Your task to perform on an android device: Open Chrome and go to settings Image 0: 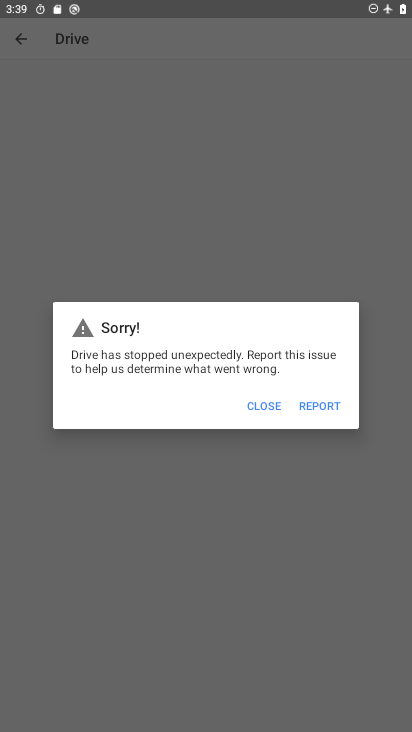
Step 0: press home button
Your task to perform on an android device: Open Chrome and go to settings Image 1: 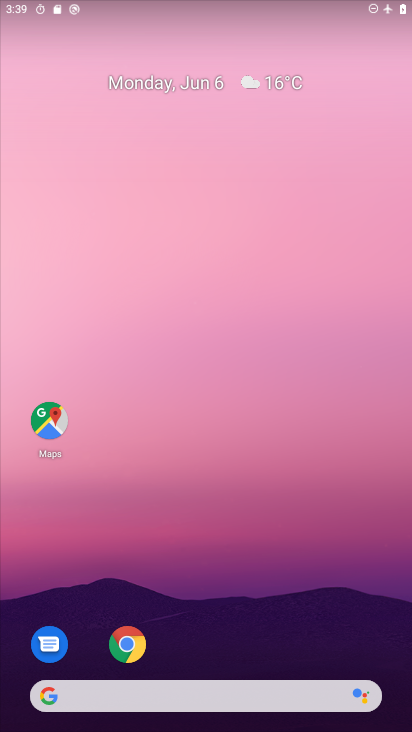
Step 1: click (126, 644)
Your task to perform on an android device: Open Chrome and go to settings Image 2: 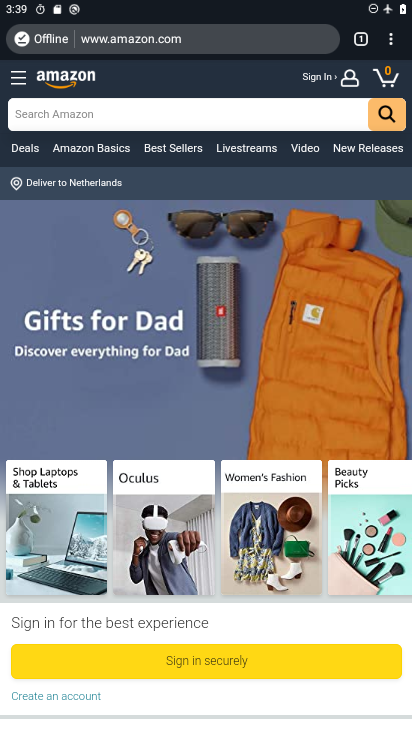
Step 2: click (392, 40)
Your task to perform on an android device: Open Chrome and go to settings Image 3: 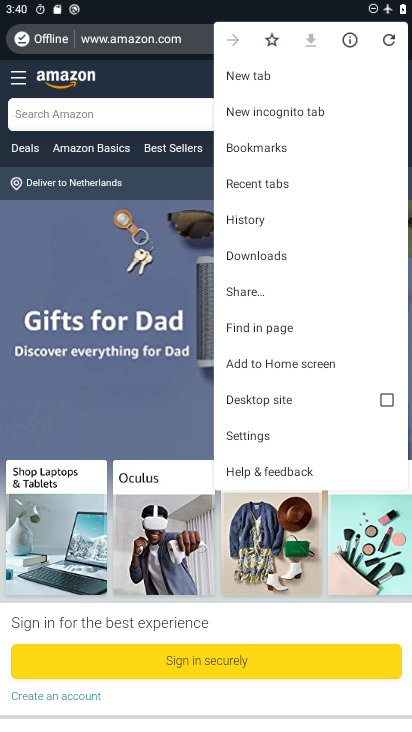
Step 3: click (258, 435)
Your task to perform on an android device: Open Chrome and go to settings Image 4: 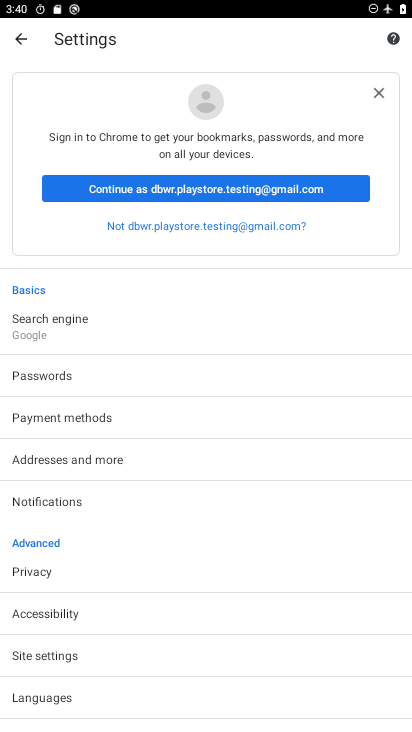
Step 4: task complete